Your task to perform on an android device: Go to internet settings Image 0: 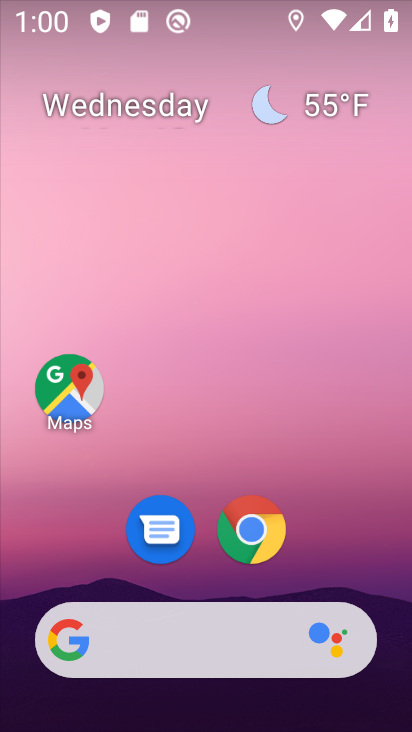
Step 0: drag from (201, 718) to (210, 170)
Your task to perform on an android device: Go to internet settings Image 1: 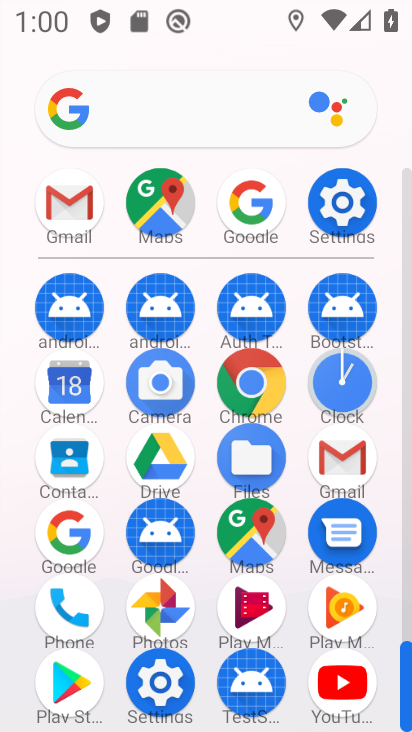
Step 1: click (345, 202)
Your task to perform on an android device: Go to internet settings Image 2: 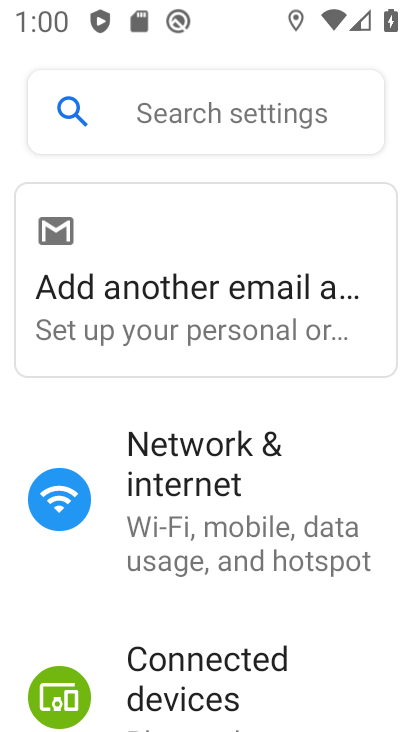
Step 2: click (198, 482)
Your task to perform on an android device: Go to internet settings Image 3: 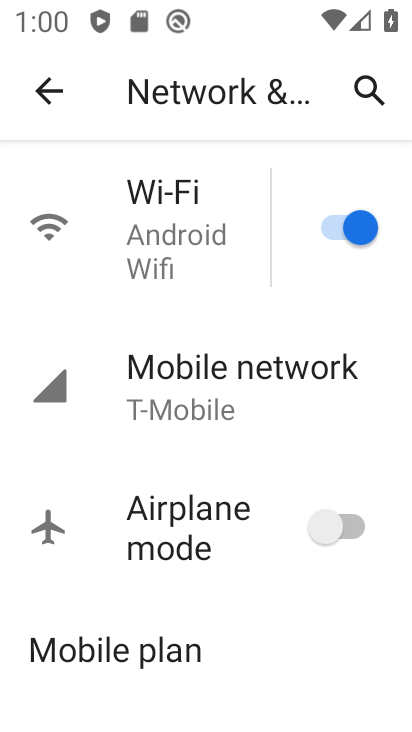
Step 3: task complete